Your task to perform on an android device: turn off airplane mode Image 0: 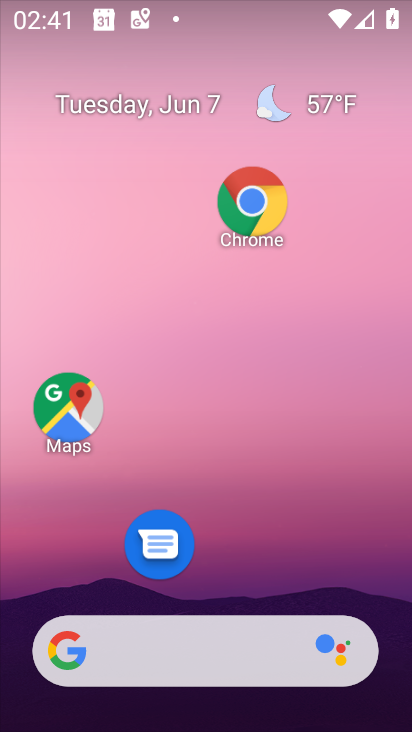
Step 0: click (298, 293)
Your task to perform on an android device: turn off airplane mode Image 1: 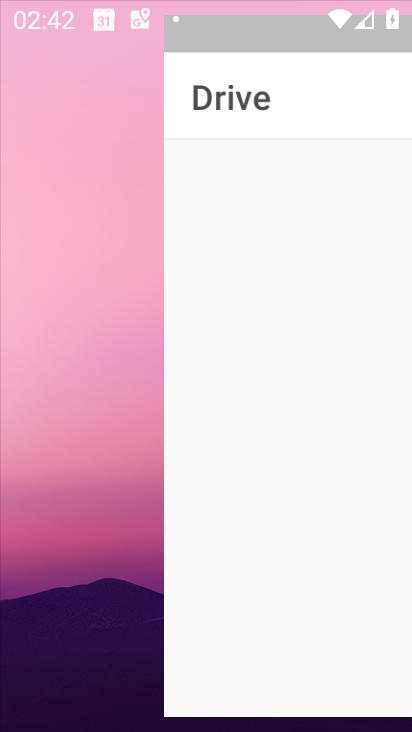
Step 1: drag from (255, 583) to (260, 342)
Your task to perform on an android device: turn off airplane mode Image 2: 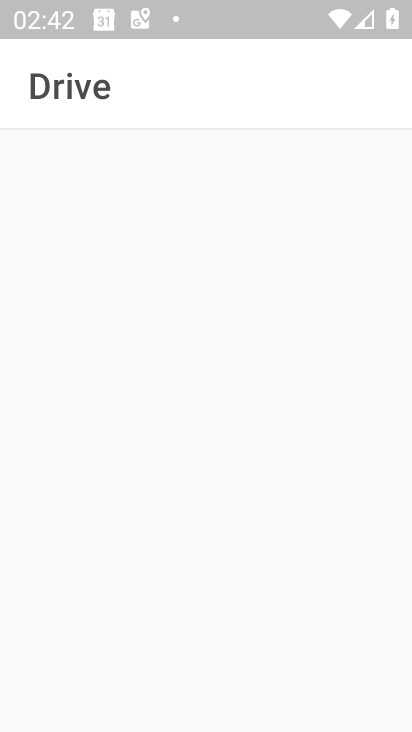
Step 2: click (227, 432)
Your task to perform on an android device: turn off airplane mode Image 3: 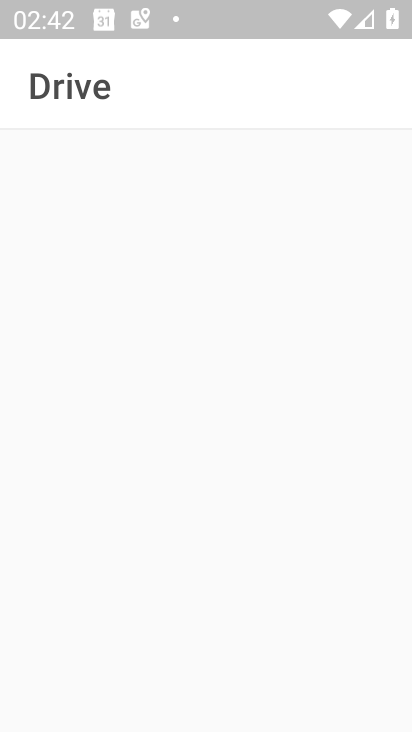
Step 3: press home button
Your task to perform on an android device: turn off airplane mode Image 4: 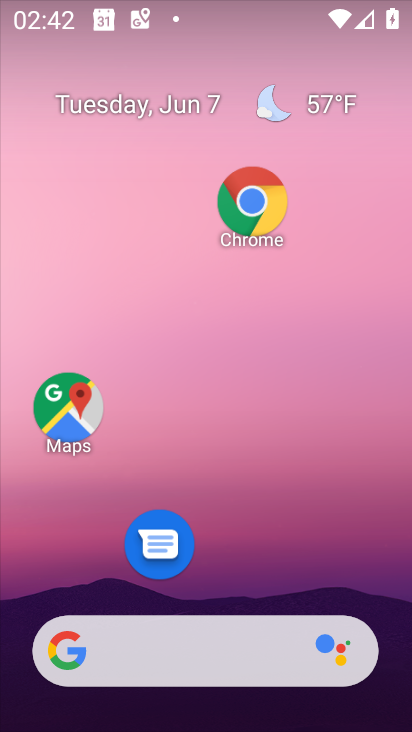
Step 4: drag from (263, 498) to (307, 157)
Your task to perform on an android device: turn off airplane mode Image 5: 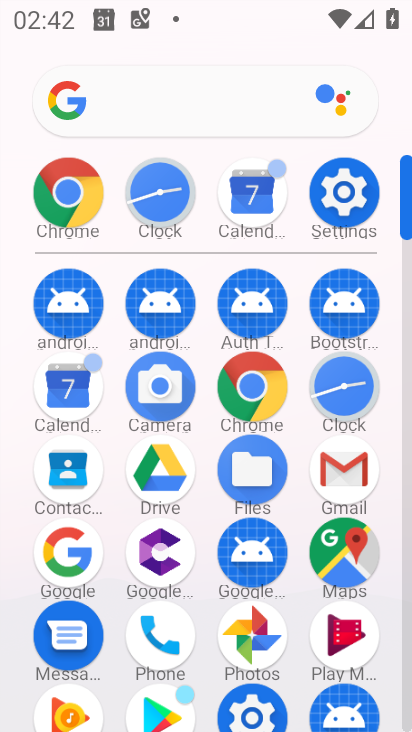
Step 5: click (347, 180)
Your task to perform on an android device: turn off airplane mode Image 6: 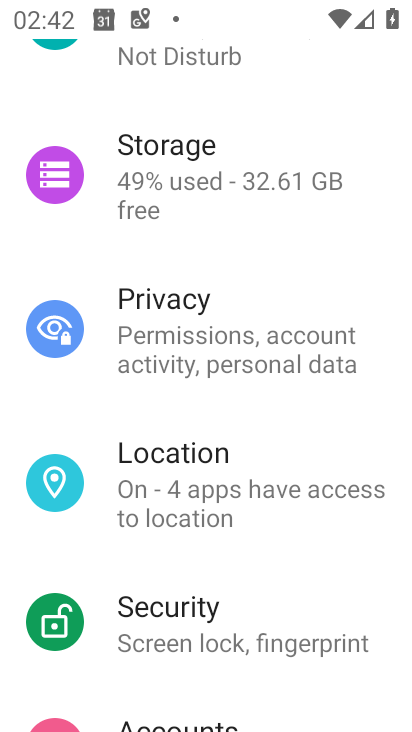
Step 6: drag from (181, 140) to (193, 558)
Your task to perform on an android device: turn off airplane mode Image 7: 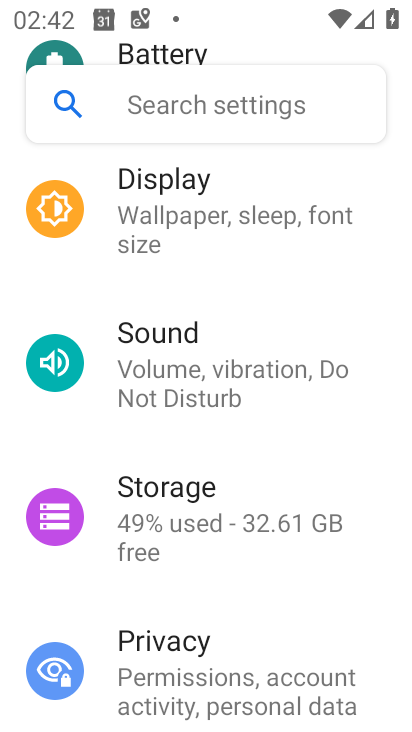
Step 7: drag from (198, 242) to (198, 616)
Your task to perform on an android device: turn off airplane mode Image 8: 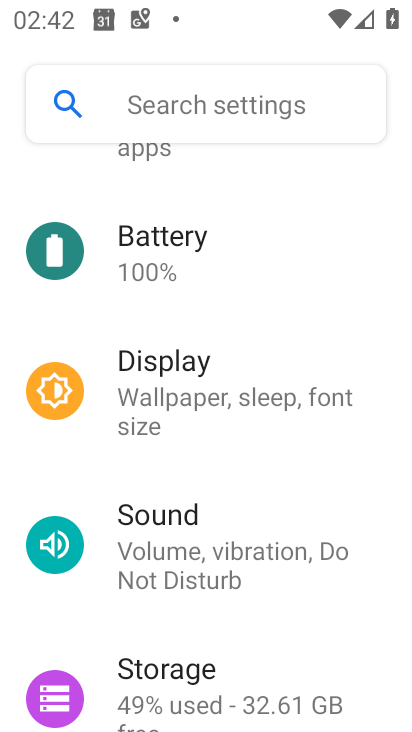
Step 8: drag from (220, 196) to (216, 681)
Your task to perform on an android device: turn off airplane mode Image 9: 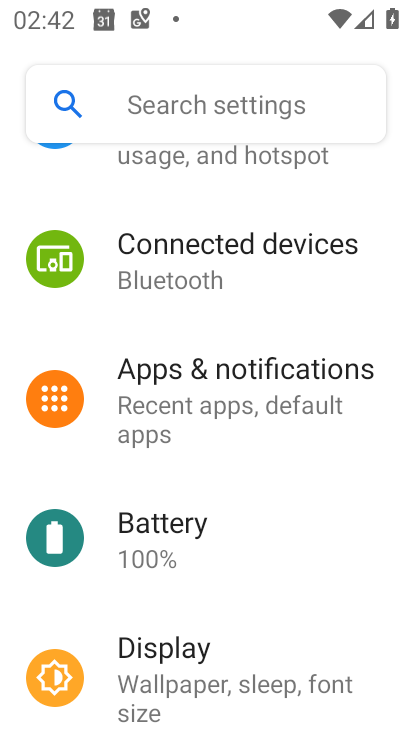
Step 9: drag from (190, 179) to (181, 582)
Your task to perform on an android device: turn off airplane mode Image 10: 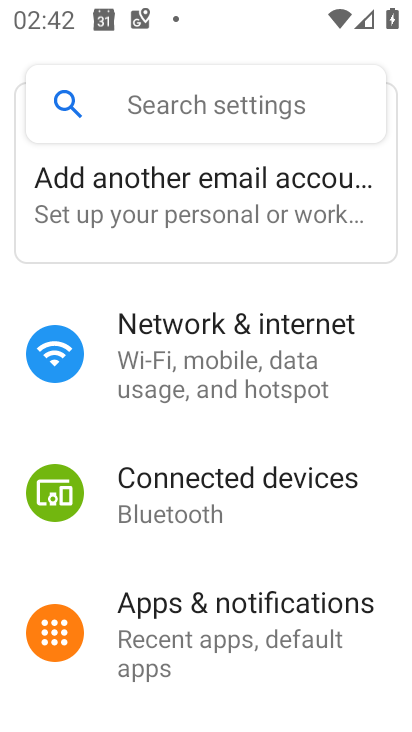
Step 10: click (209, 325)
Your task to perform on an android device: turn off airplane mode Image 11: 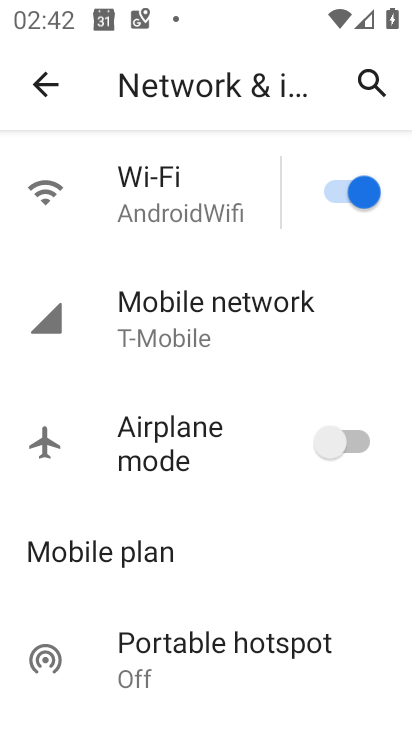
Step 11: task complete